Your task to perform on an android device: Open Chrome and go to the settings page Image 0: 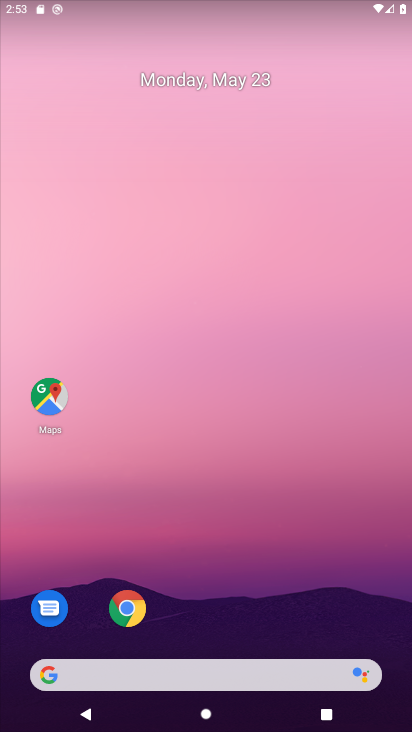
Step 0: drag from (251, 623) to (226, 226)
Your task to perform on an android device: Open Chrome and go to the settings page Image 1: 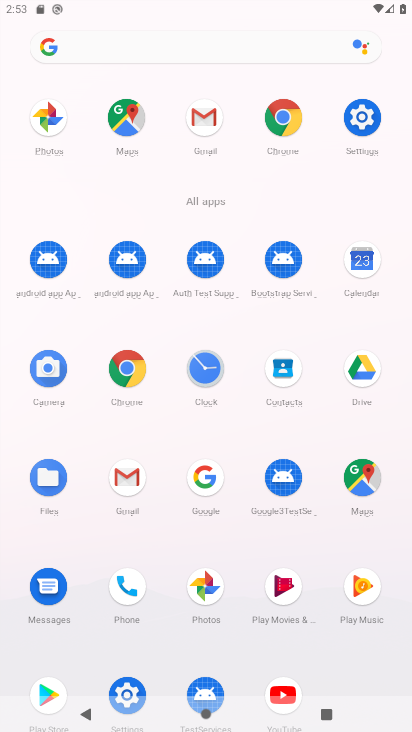
Step 1: click (299, 129)
Your task to perform on an android device: Open Chrome and go to the settings page Image 2: 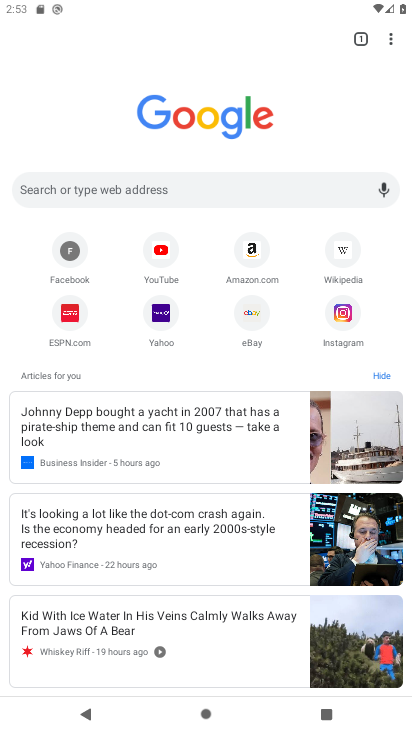
Step 2: click (392, 38)
Your task to perform on an android device: Open Chrome and go to the settings page Image 3: 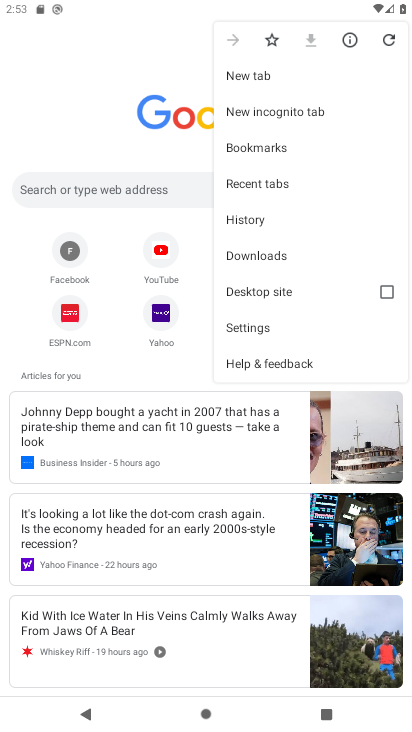
Step 3: click (305, 333)
Your task to perform on an android device: Open Chrome and go to the settings page Image 4: 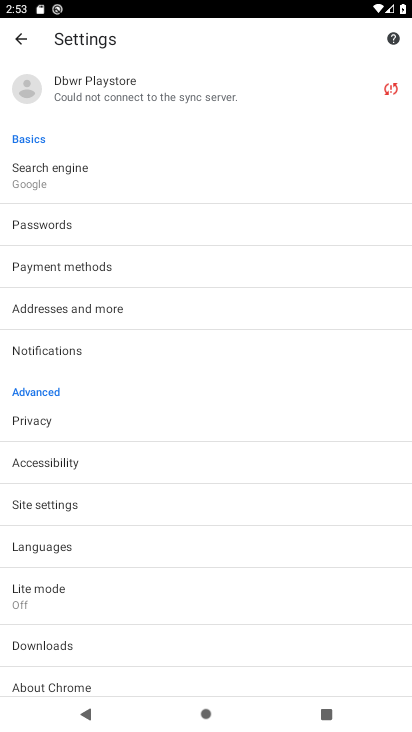
Step 4: task complete